Your task to perform on an android device: Turn on the flashlight Image 0: 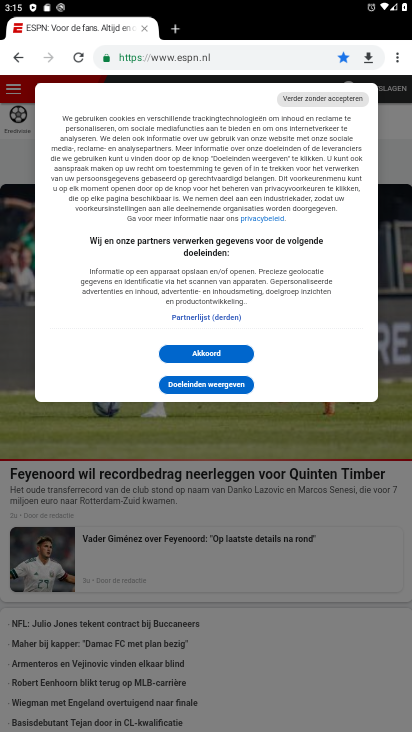
Step 0: press home button
Your task to perform on an android device: Turn on the flashlight Image 1: 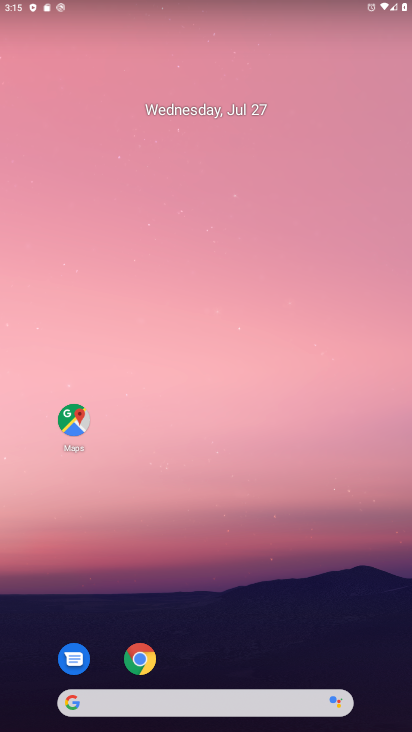
Step 1: drag from (268, 7) to (272, 422)
Your task to perform on an android device: Turn on the flashlight Image 2: 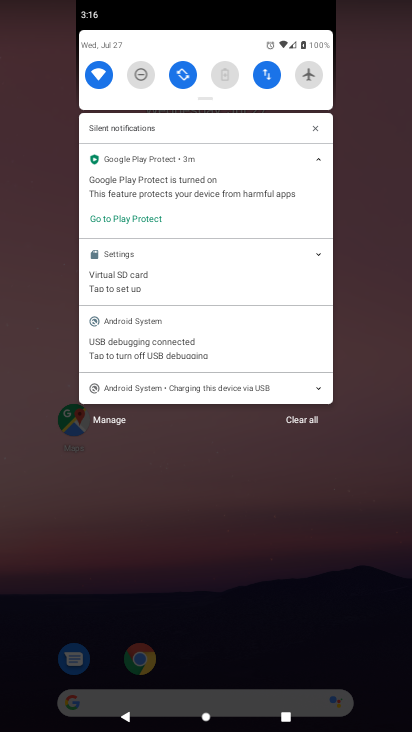
Step 2: drag from (199, 89) to (214, 447)
Your task to perform on an android device: Turn on the flashlight Image 3: 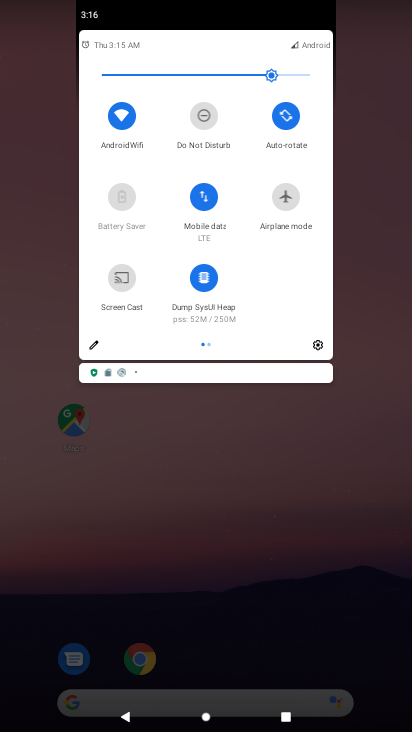
Step 3: click (88, 346)
Your task to perform on an android device: Turn on the flashlight Image 4: 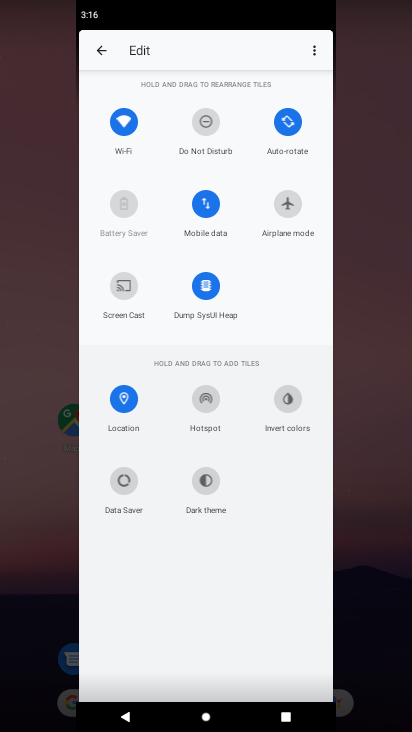
Step 4: task complete